Your task to perform on an android device: View the shopping cart on ebay.com. Image 0: 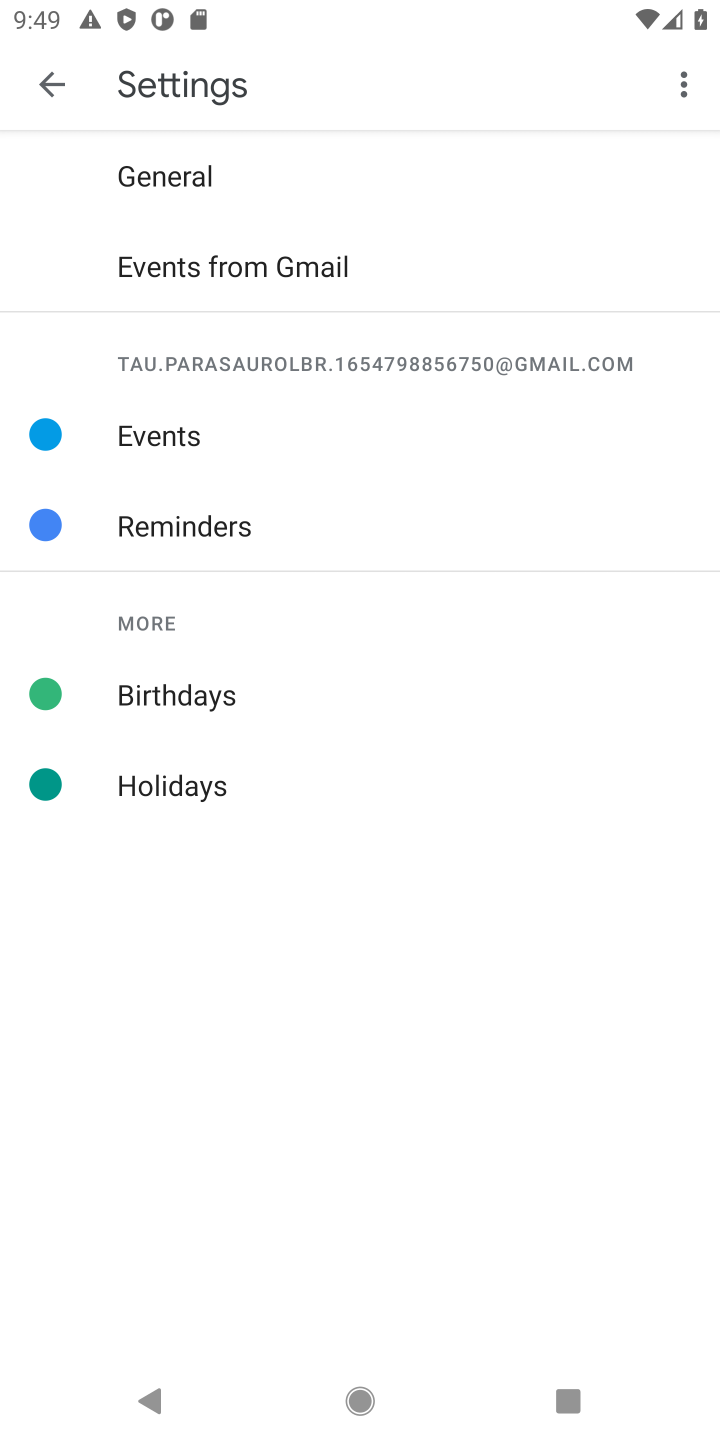
Step 0: press home button
Your task to perform on an android device: View the shopping cart on ebay.com. Image 1: 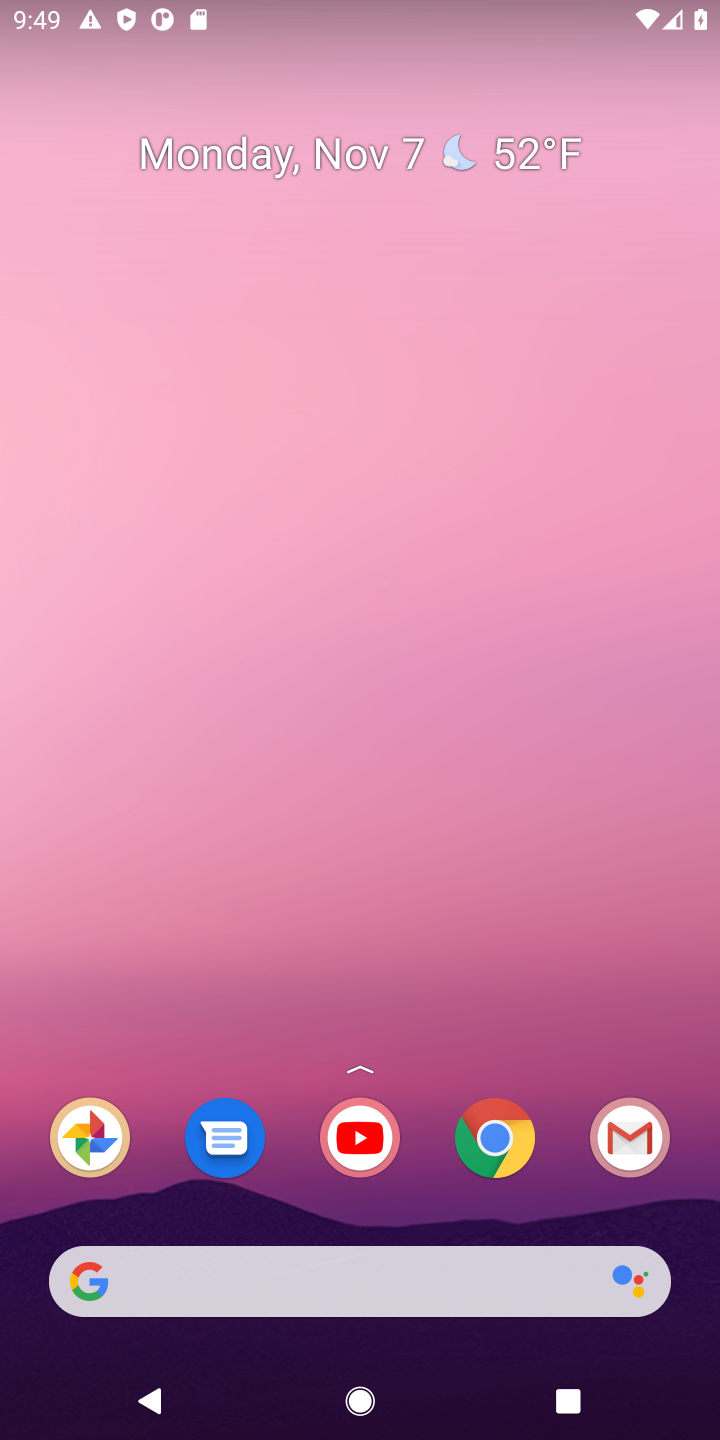
Step 1: drag from (445, 955) to (385, 207)
Your task to perform on an android device: View the shopping cart on ebay.com. Image 2: 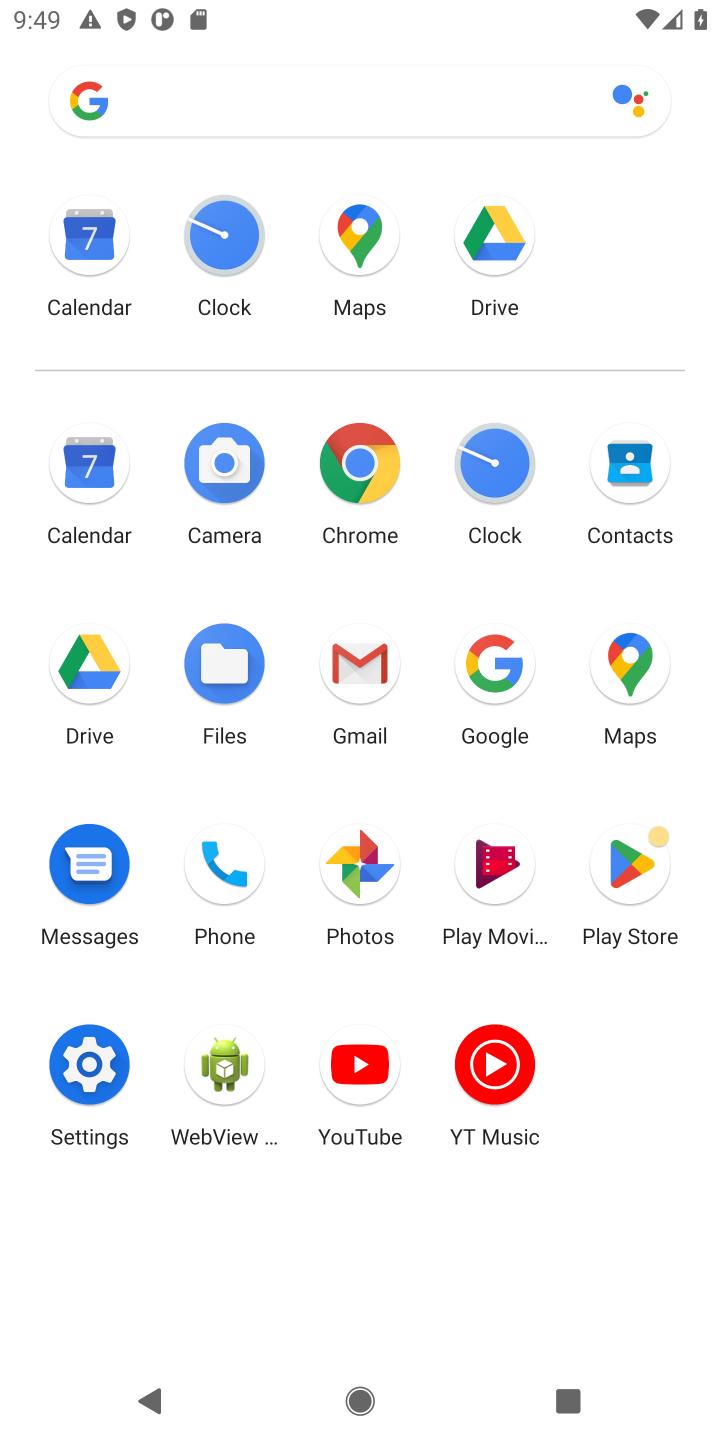
Step 2: click (370, 465)
Your task to perform on an android device: View the shopping cart on ebay.com. Image 3: 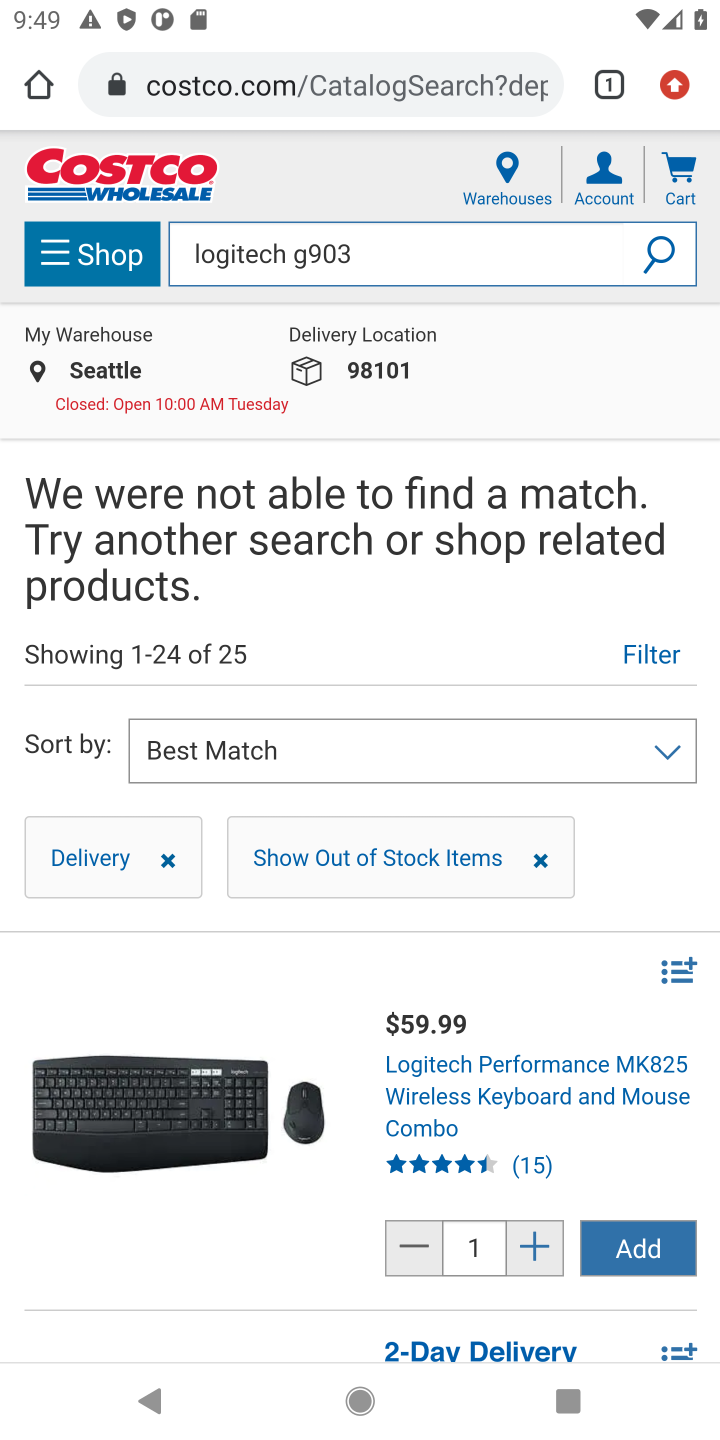
Step 3: click (304, 82)
Your task to perform on an android device: View the shopping cart on ebay.com. Image 4: 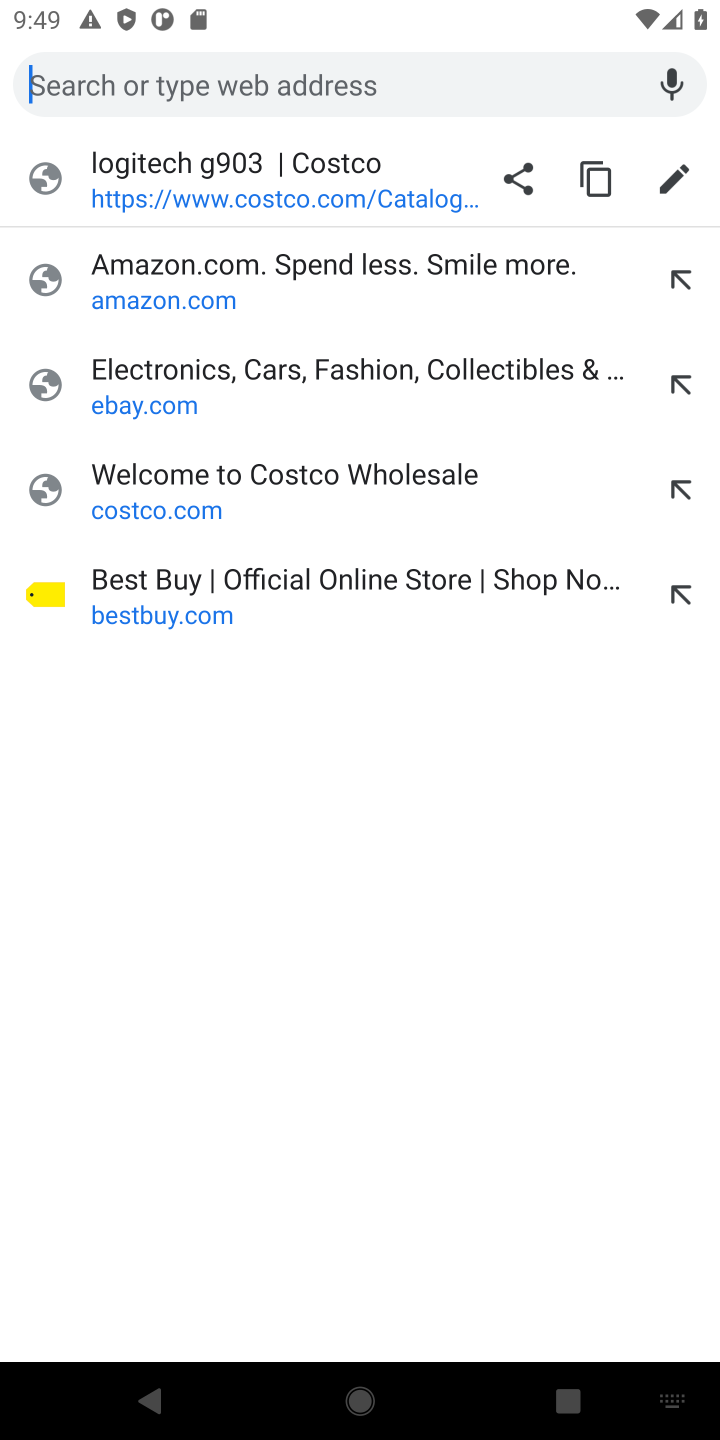
Step 4: type "ebay.com"
Your task to perform on an android device: View the shopping cart on ebay.com. Image 5: 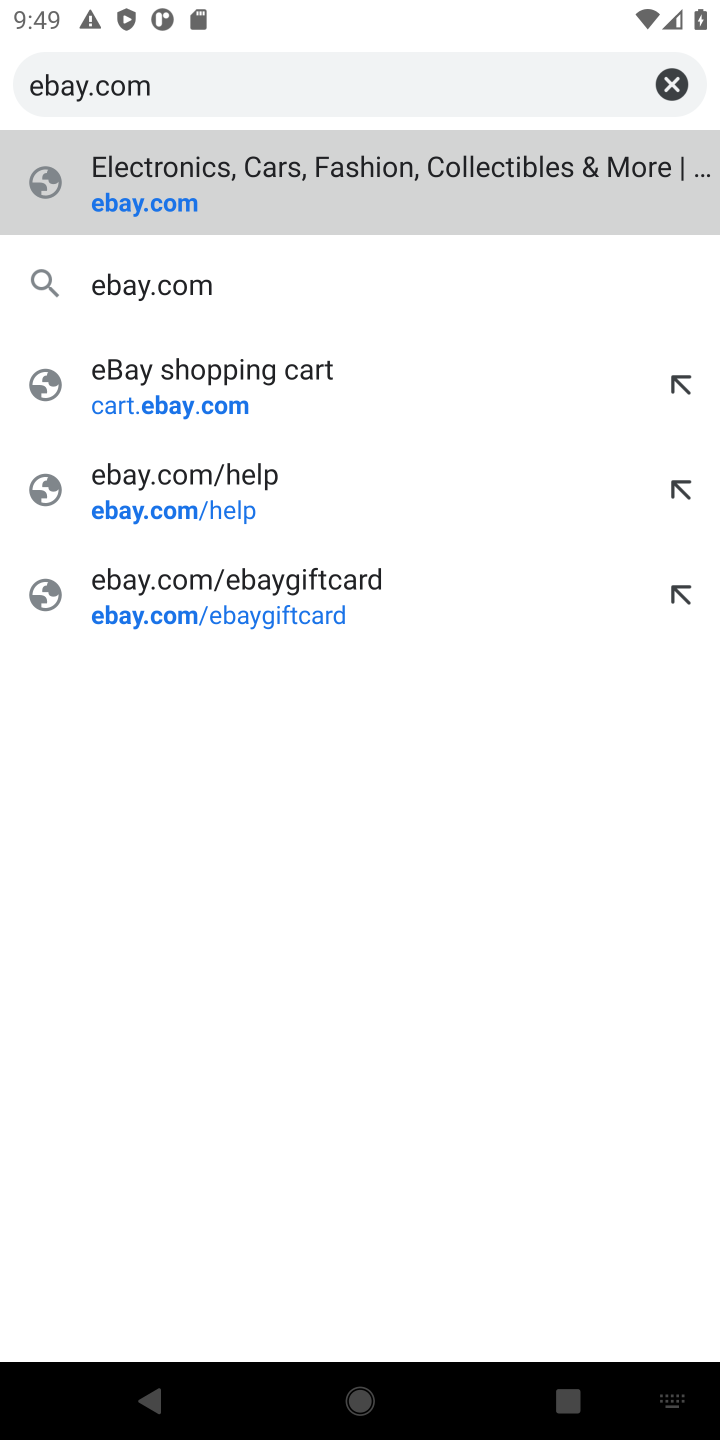
Step 5: press enter
Your task to perform on an android device: View the shopping cart on ebay.com. Image 6: 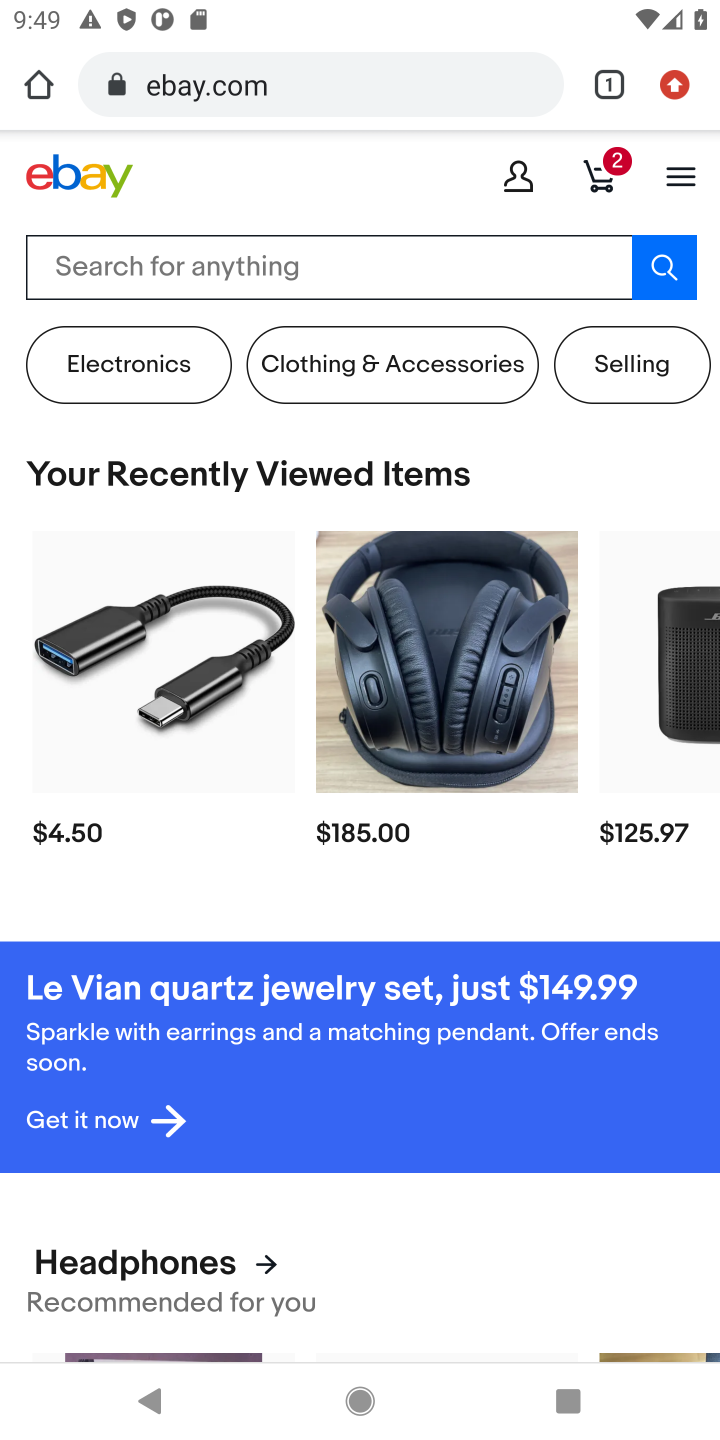
Step 6: click (622, 177)
Your task to perform on an android device: View the shopping cart on ebay.com. Image 7: 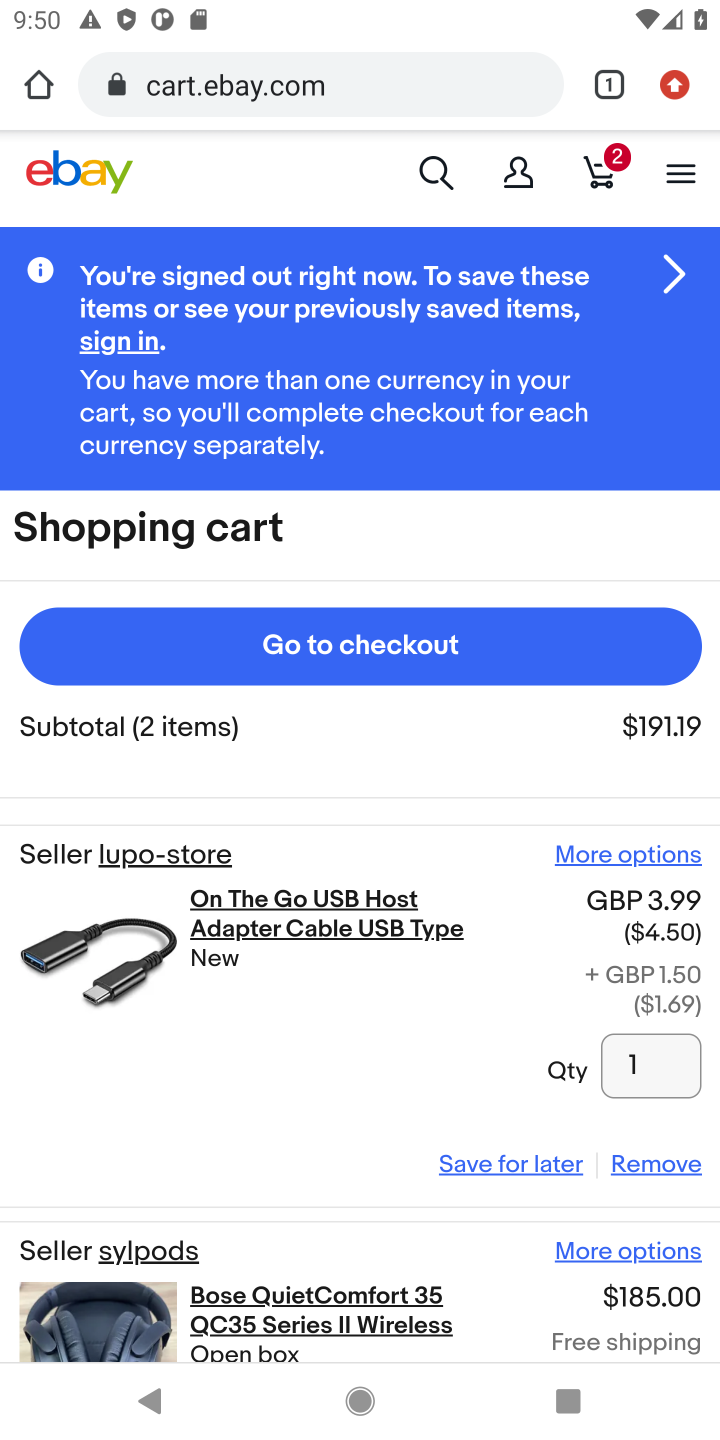
Step 7: click (608, 164)
Your task to perform on an android device: View the shopping cart on ebay.com. Image 8: 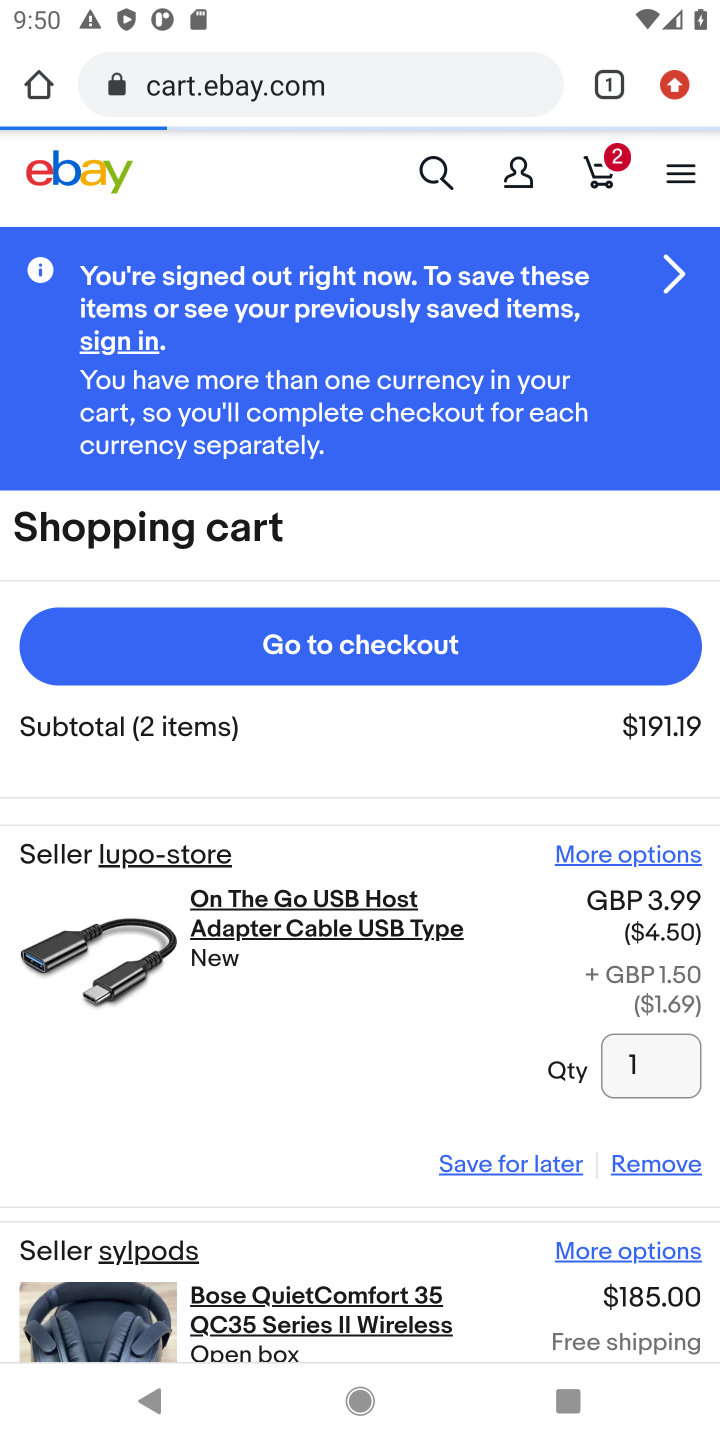
Step 8: task complete